Your task to perform on an android device: allow notifications from all sites in the chrome app Image 0: 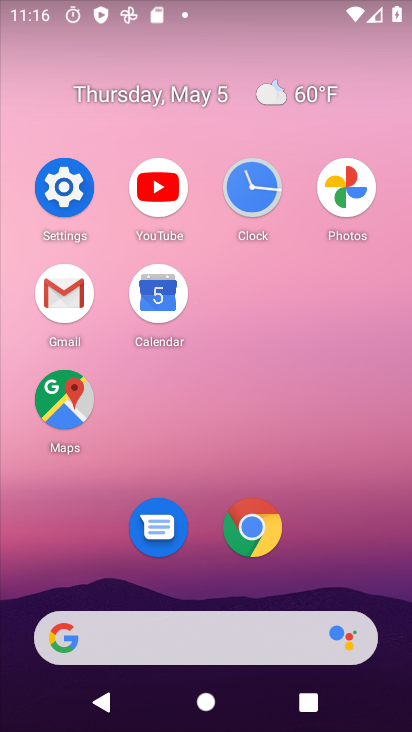
Step 0: click (271, 512)
Your task to perform on an android device: allow notifications from all sites in the chrome app Image 1: 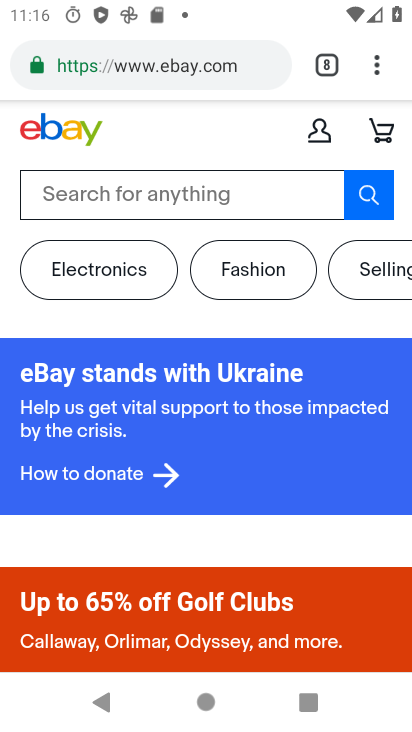
Step 1: click (376, 68)
Your task to perform on an android device: allow notifications from all sites in the chrome app Image 2: 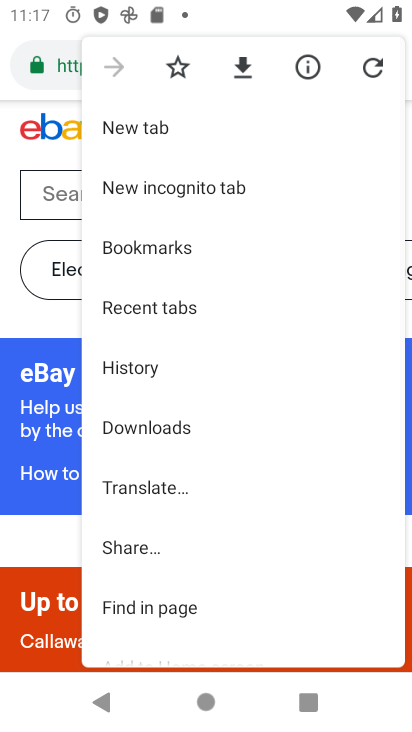
Step 2: drag from (199, 522) to (245, 180)
Your task to perform on an android device: allow notifications from all sites in the chrome app Image 3: 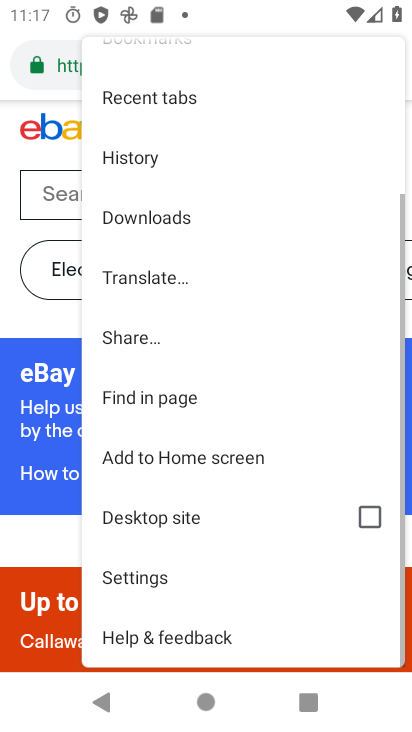
Step 3: click (183, 571)
Your task to perform on an android device: allow notifications from all sites in the chrome app Image 4: 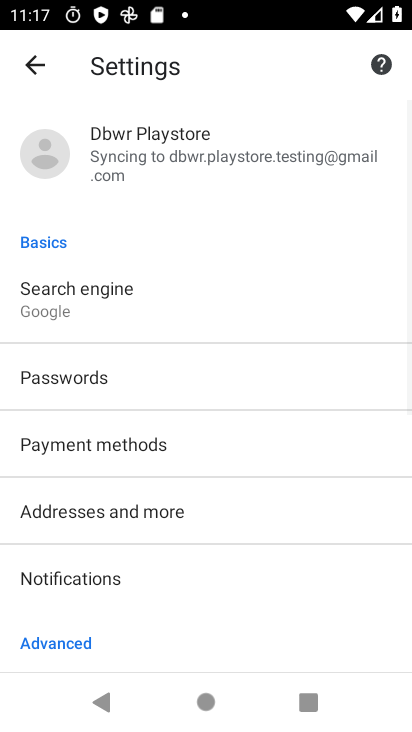
Step 4: drag from (160, 535) to (178, 231)
Your task to perform on an android device: allow notifications from all sites in the chrome app Image 5: 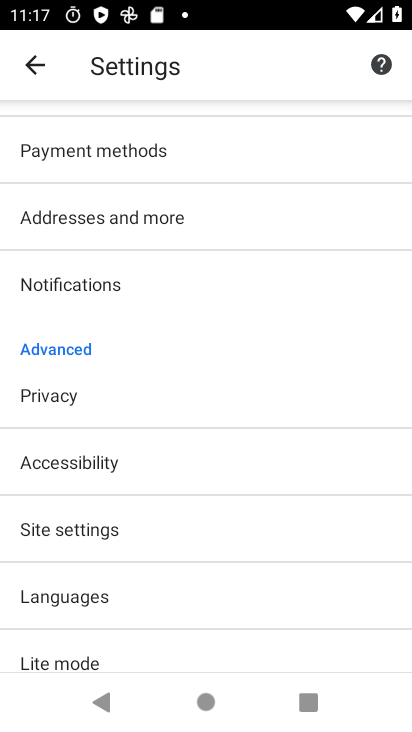
Step 5: click (115, 305)
Your task to perform on an android device: allow notifications from all sites in the chrome app Image 6: 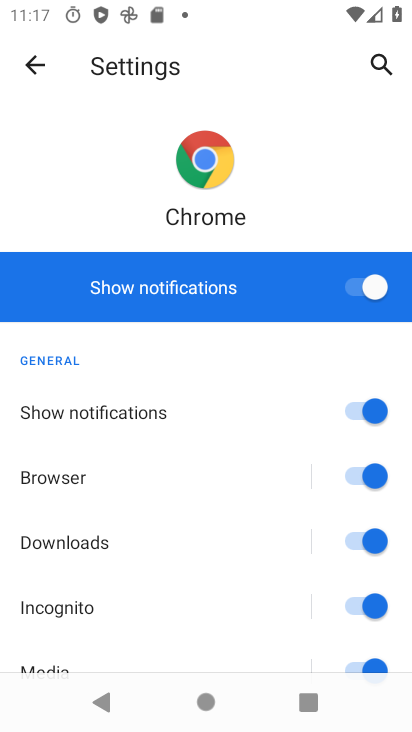
Step 6: task complete